Your task to perform on an android device: turn pop-ups off in chrome Image 0: 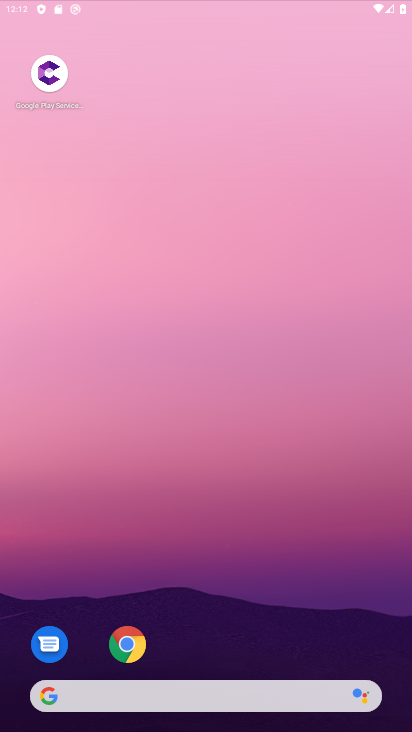
Step 0: press back button
Your task to perform on an android device: turn pop-ups off in chrome Image 1: 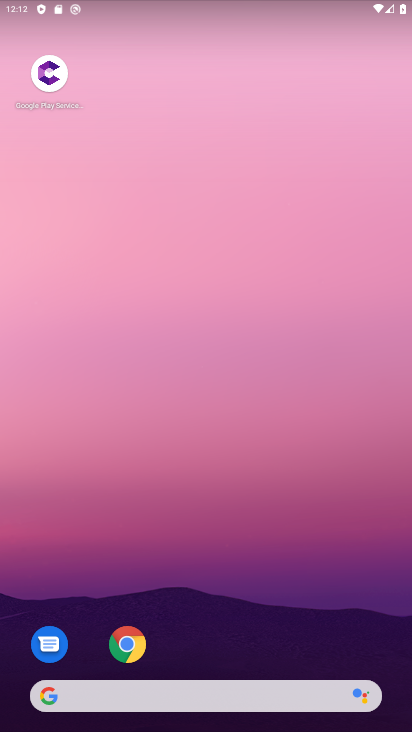
Step 1: drag from (385, 623) to (370, 156)
Your task to perform on an android device: turn pop-ups off in chrome Image 2: 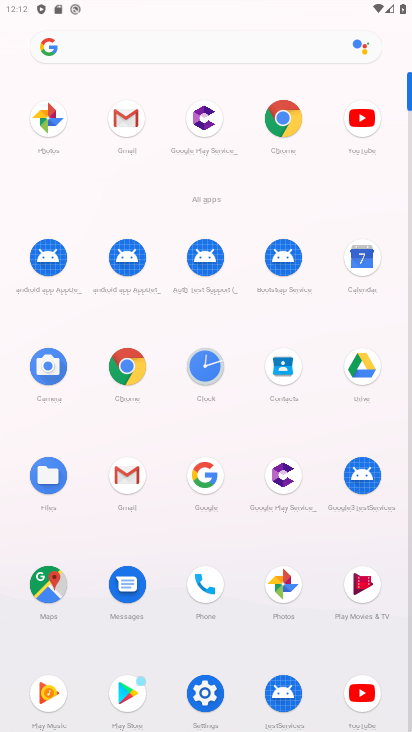
Step 2: click (293, 121)
Your task to perform on an android device: turn pop-ups off in chrome Image 3: 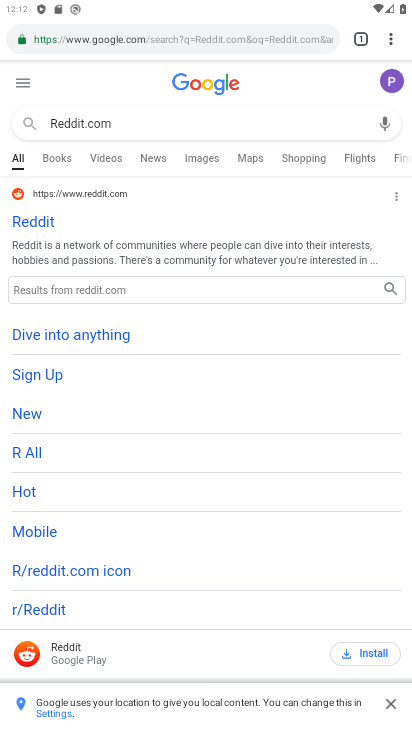
Step 3: click (390, 34)
Your task to perform on an android device: turn pop-ups off in chrome Image 4: 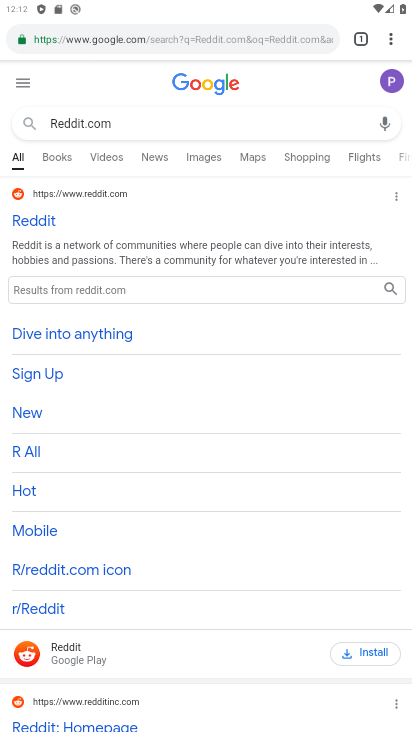
Step 4: click (390, 34)
Your task to perform on an android device: turn pop-ups off in chrome Image 5: 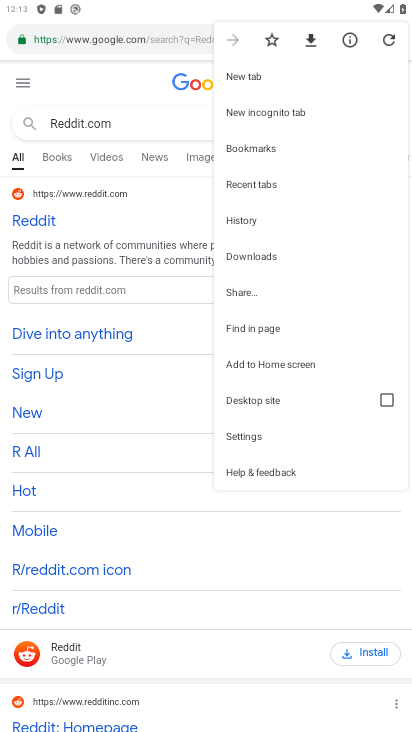
Step 5: click (249, 431)
Your task to perform on an android device: turn pop-ups off in chrome Image 6: 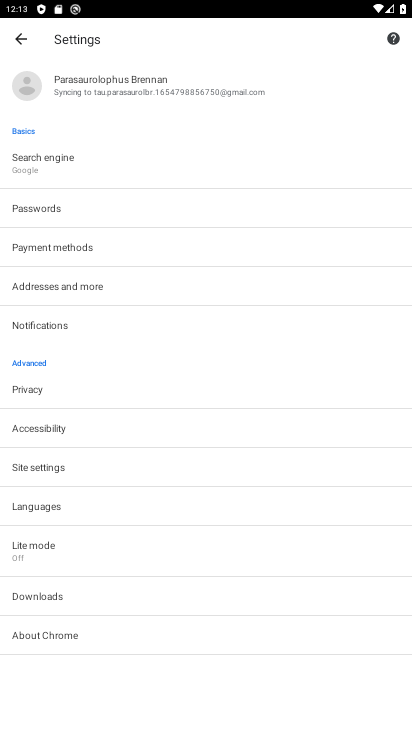
Step 6: click (42, 469)
Your task to perform on an android device: turn pop-ups off in chrome Image 7: 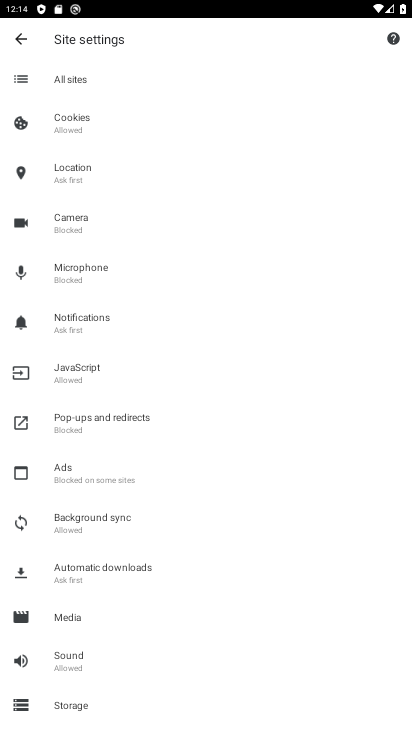
Step 7: click (103, 416)
Your task to perform on an android device: turn pop-ups off in chrome Image 8: 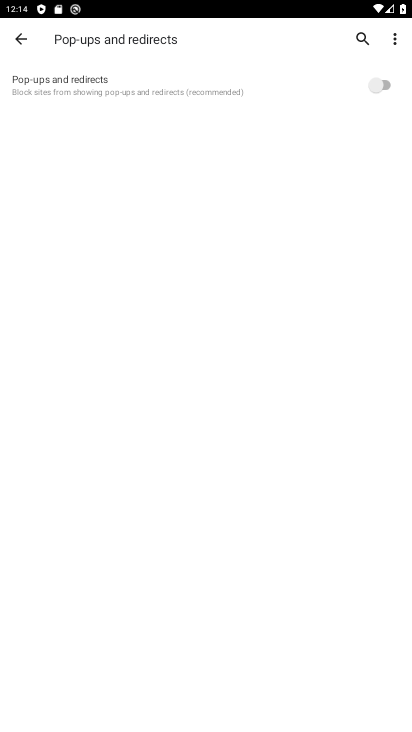
Step 8: task complete